Your task to perform on an android device: Open display settings Image 0: 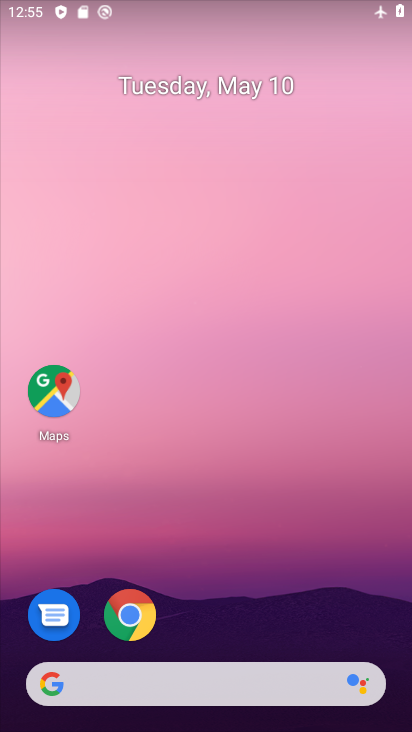
Step 0: drag from (274, 603) to (246, 67)
Your task to perform on an android device: Open display settings Image 1: 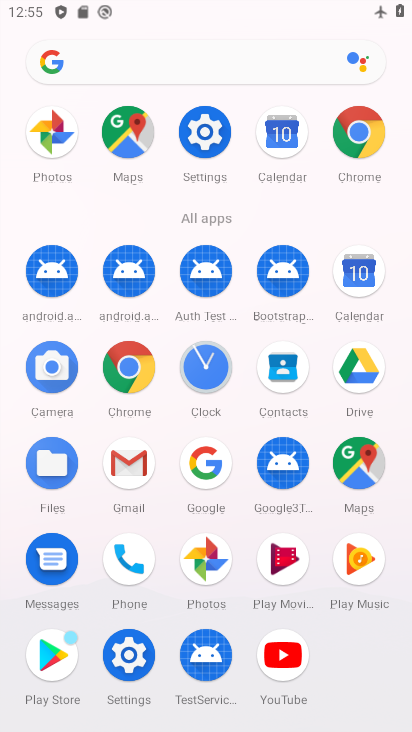
Step 1: click (137, 666)
Your task to perform on an android device: Open display settings Image 2: 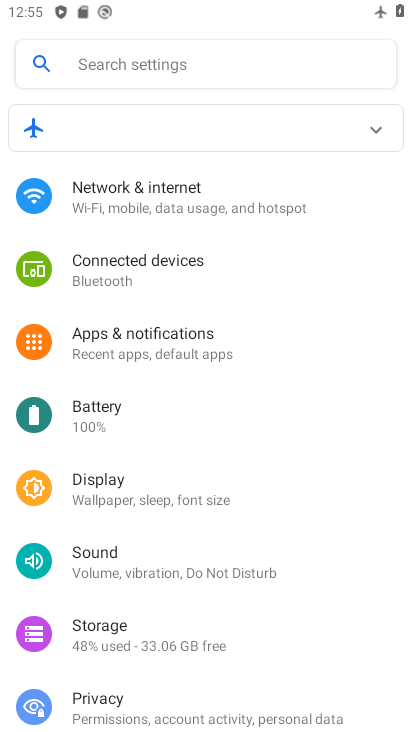
Step 2: click (161, 494)
Your task to perform on an android device: Open display settings Image 3: 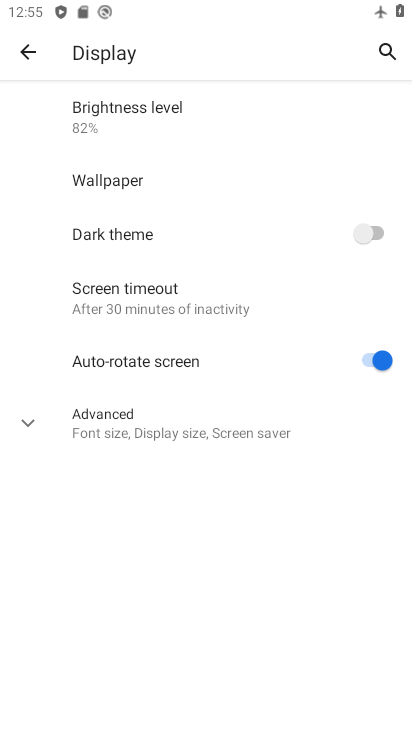
Step 3: task complete